Your task to perform on an android device: Go to accessibility settings Image 0: 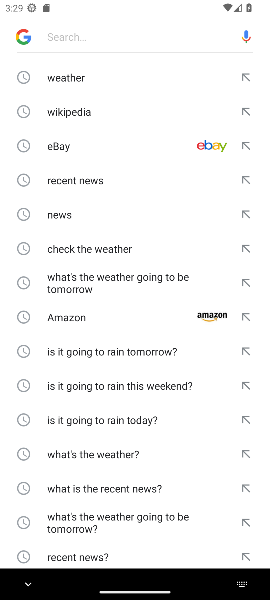
Step 0: press back button
Your task to perform on an android device: Go to accessibility settings Image 1: 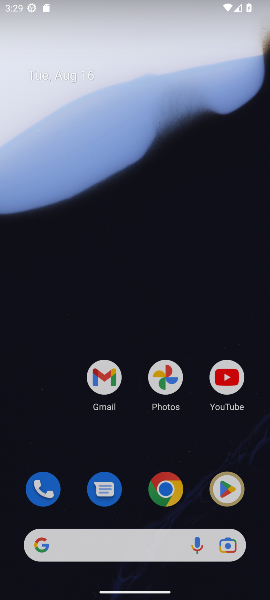
Step 1: press back button
Your task to perform on an android device: Go to accessibility settings Image 2: 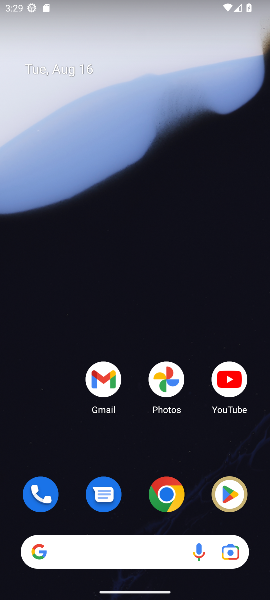
Step 2: drag from (146, 510) to (143, 166)
Your task to perform on an android device: Go to accessibility settings Image 3: 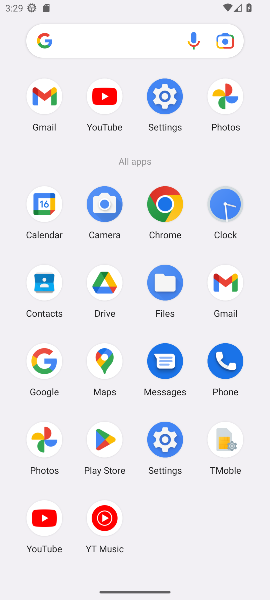
Step 3: click (169, 445)
Your task to perform on an android device: Go to accessibility settings Image 4: 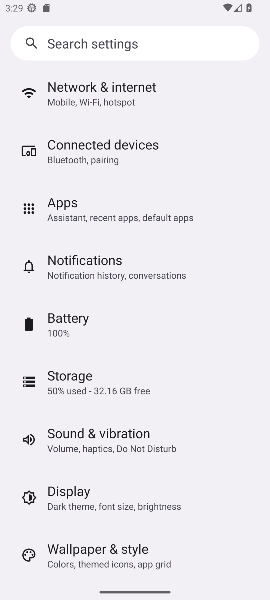
Step 4: drag from (136, 481) to (98, 93)
Your task to perform on an android device: Go to accessibility settings Image 5: 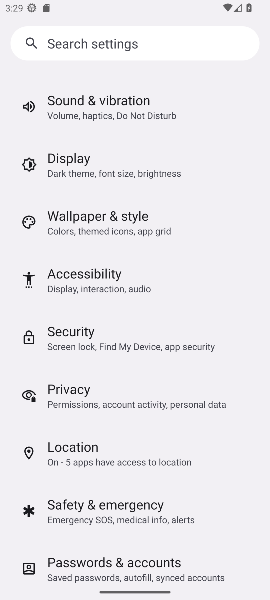
Step 5: click (70, 284)
Your task to perform on an android device: Go to accessibility settings Image 6: 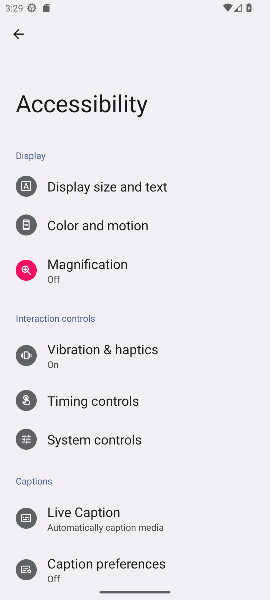
Step 6: task complete